Your task to perform on an android device: turn on javascript in the chrome app Image 0: 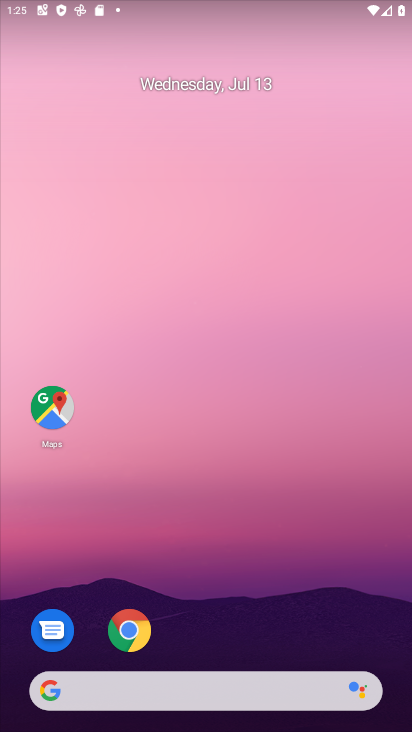
Step 0: drag from (400, 682) to (228, 69)
Your task to perform on an android device: turn on javascript in the chrome app Image 1: 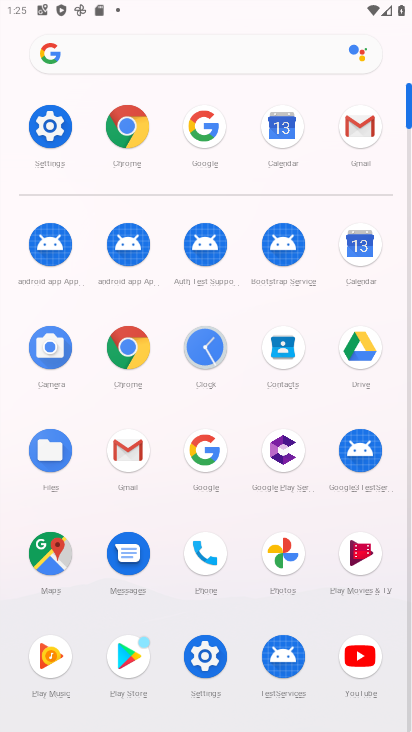
Step 1: click (127, 356)
Your task to perform on an android device: turn on javascript in the chrome app Image 2: 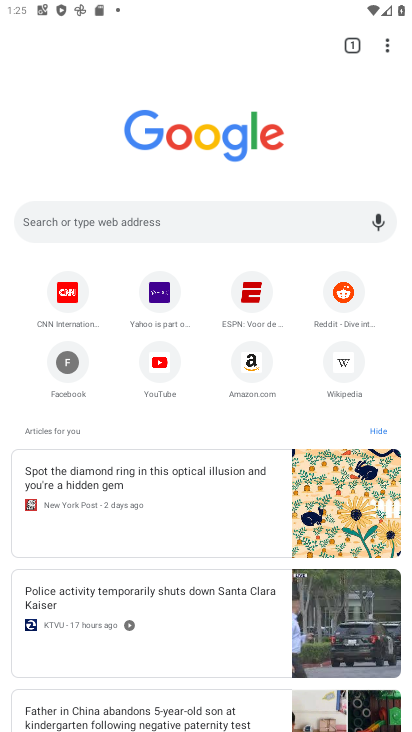
Step 2: click (386, 43)
Your task to perform on an android device: turn on javascript in the chrome app Image 3: 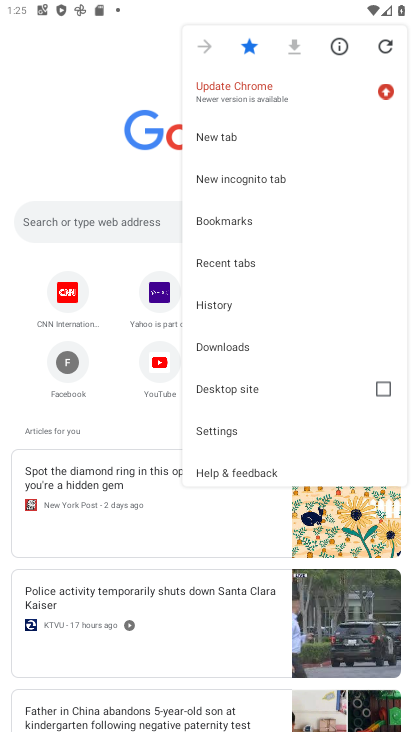
Step 3: click (232, 435)
Your task to perform on an android device: turn on javascript in the chrome app Image 4: 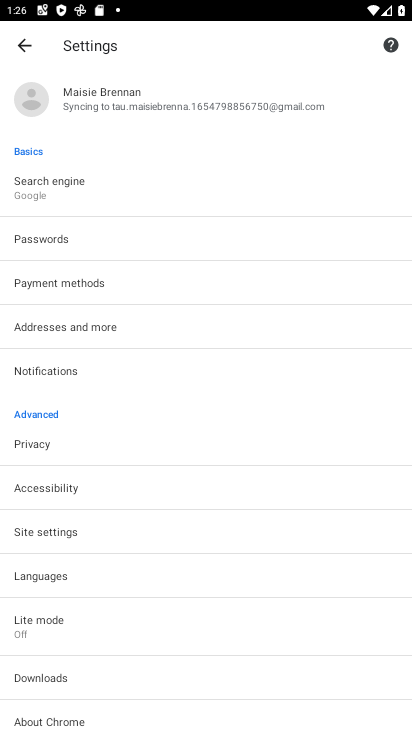
Step 4: click (56, 532)
Your task to perform on an android device: turn on javascript in the chrome app Image 5: 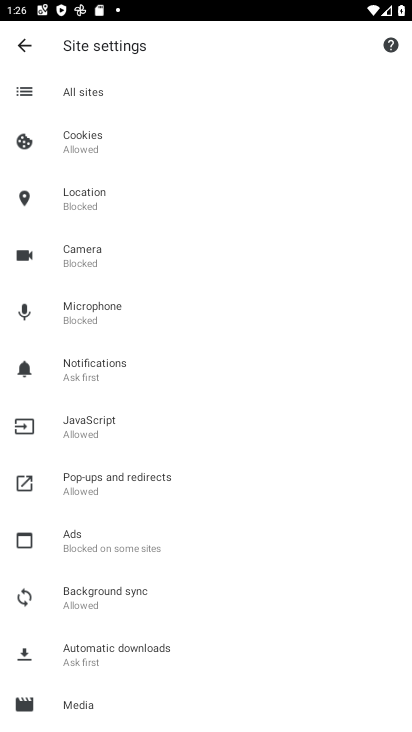
Step 5: click (91, 446)
Your task to perform on an android device: turn on javascript in the chrome app Image 6: 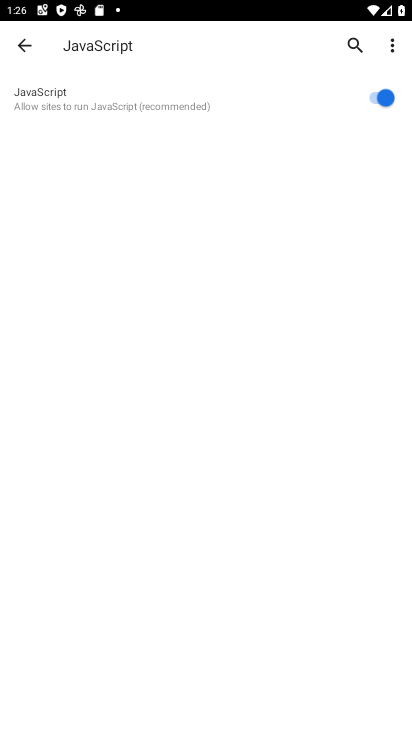
Step 6: task complete